Your task to perform on an android device: Go to accessibility settings Image 0: 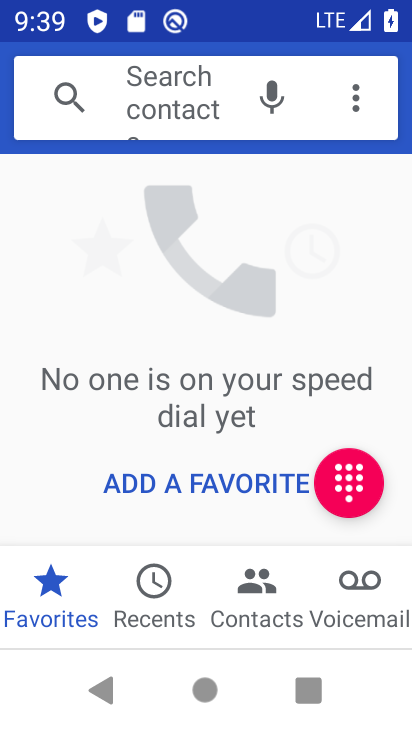
Step 0: press home button
Your task to perform on an android device: Go to accessibility settings Image 1: 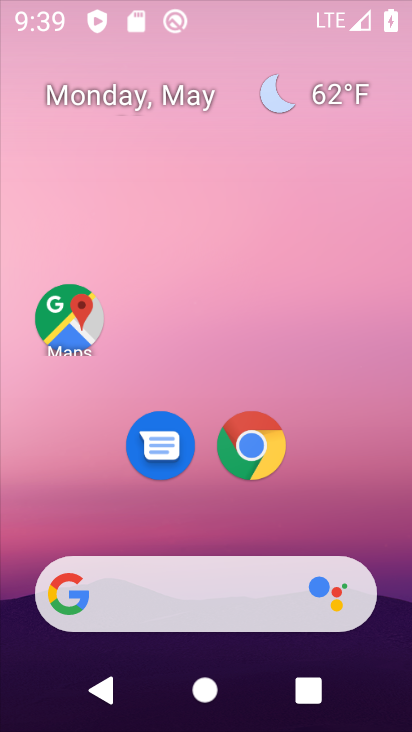
Step 1: drag from (388, 623) to (274, 103)
Your task to perform on an android device: Go to accessibility settings Image 2: 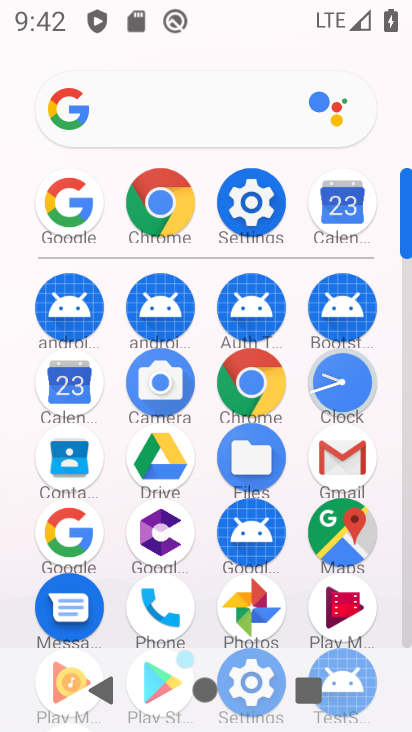
Step 2: click (271, 207)
Your task to perform on an android device: Go to accessibility settings Image 3: 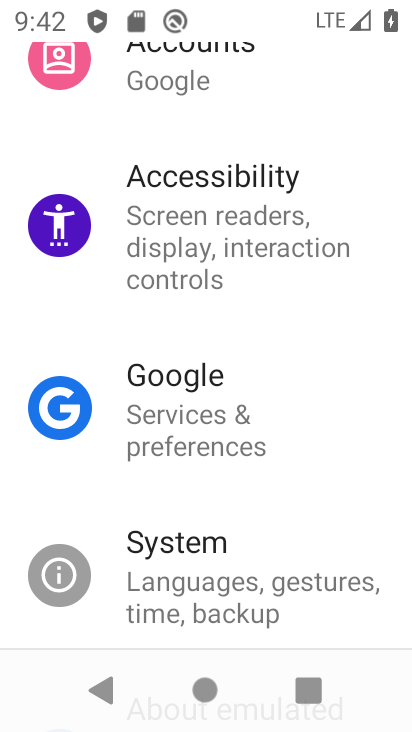
Step 3: click (200, 260)
Your task to perform on an android device: Go to accessibility settings Image 4: 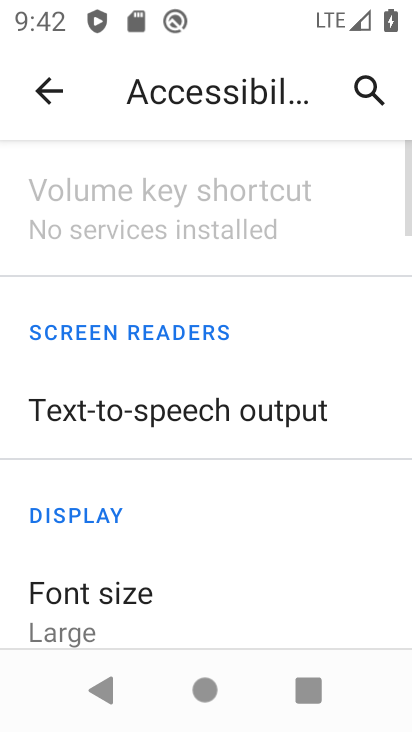
Step 4: task complete